Your task to perform on an android device: Go to Maps Image 0: 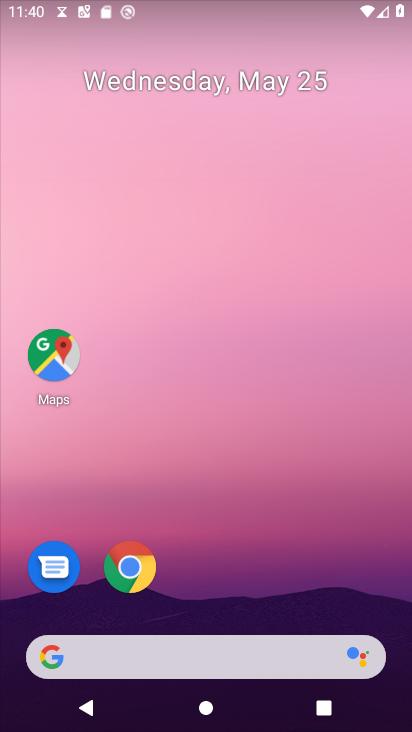
Step 0: drag from (310, 562) to (302, 29)
Your task to perform on an android device: Go to Maps Image 1: 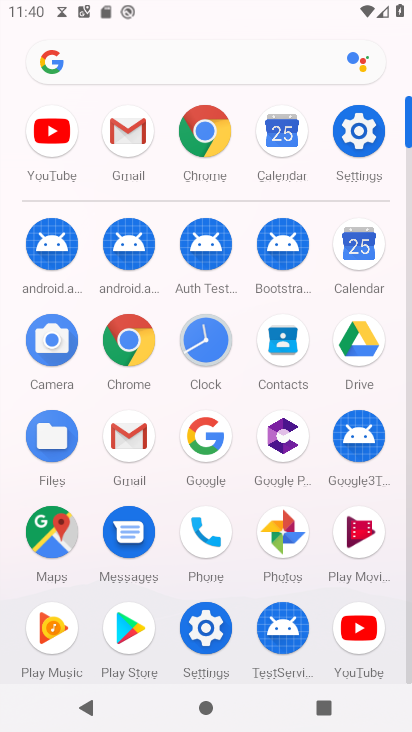
Step 1: click (73, 516)
Your task to perform on an android device: Go to Maps Image 2: 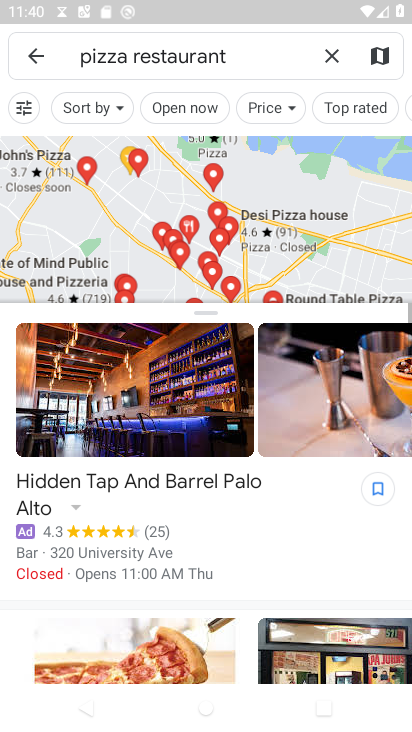
Step 2: task complete